Your task to perform on an android device: Open Google Image 0: 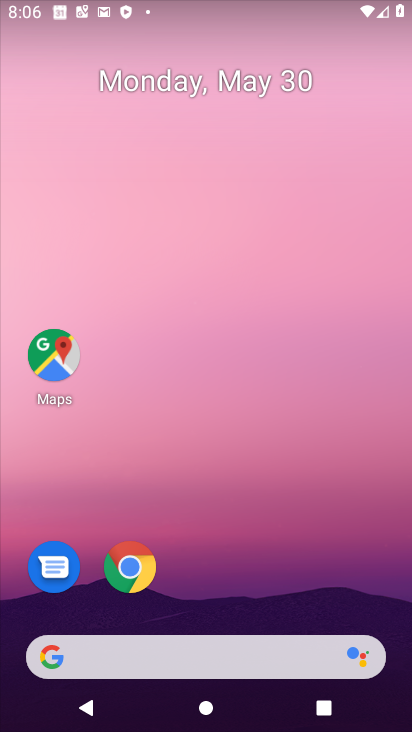
Step 0: click (234, 649)
Your task to perform on an android device: Open Google Image 1: 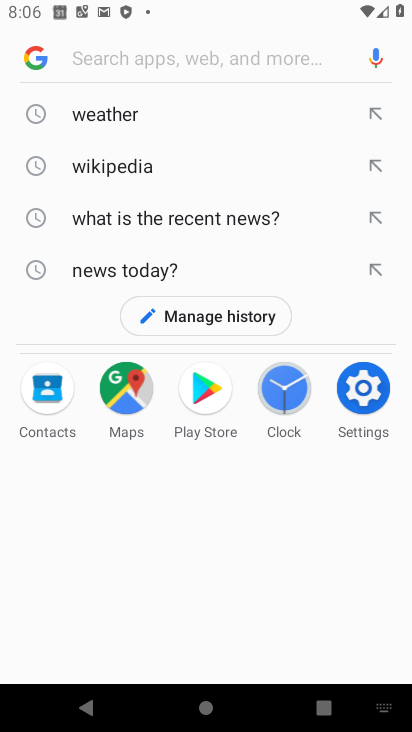
Step 1: type "google.com"
Your task to perform on an android device: Open Google Image 2: 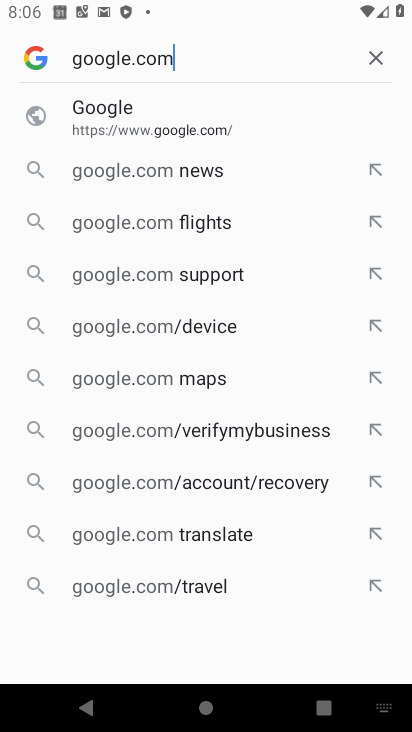
Step 2: click (89, 110)
Your task to perform on an android device: Open Google Image 3: 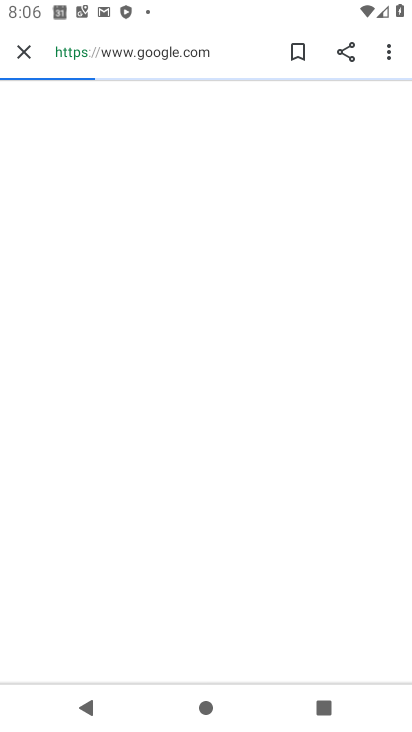
Step 3: task complete